Your task to perform on an android device: Search for sushi restaurants on Maps Image 0: 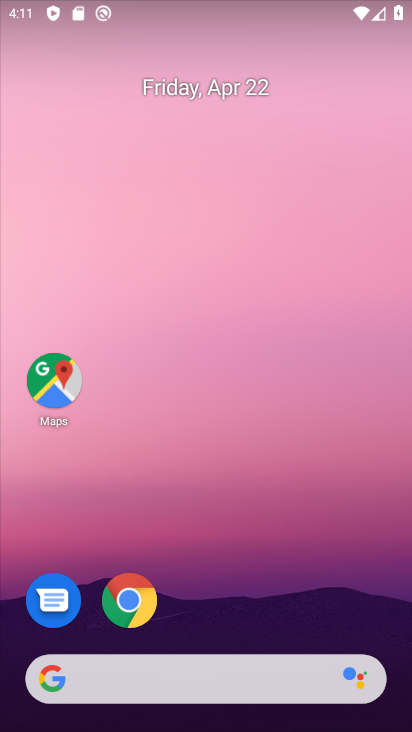
Step 0: click (233, 261)
Your task to perform on an android device: Search for sushi restaurants on Maps Image 1: 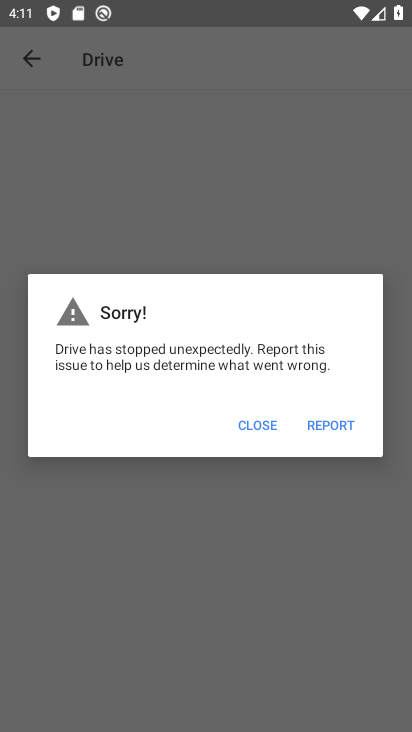
Step 1: press home button
Your task to perform on an android device: Search for sushi restaurants on Maps Image 2: 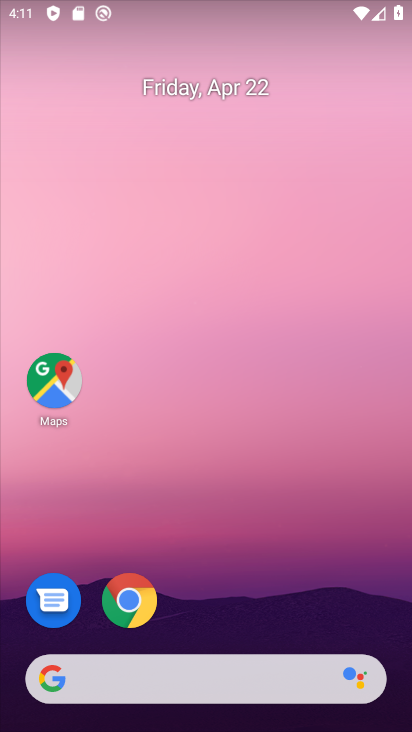
Step 2: drag from (284, 693) to (331, 320)
Your task to perform on an android device: Search for sushi restaurants on Maps Image 3: 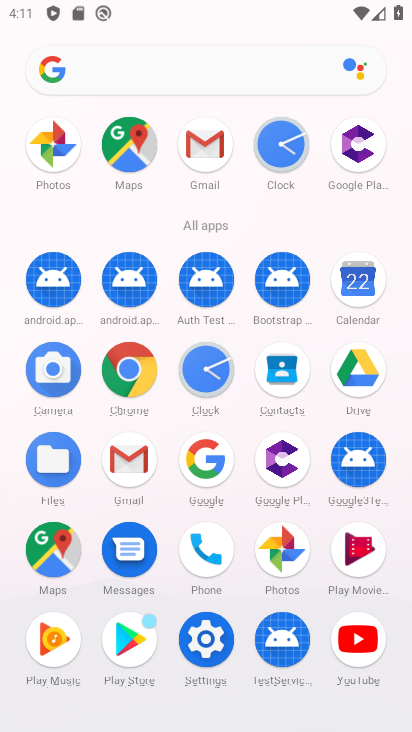
Step 3: click (65, 567)
Your task to perform on an android device: Search for sushi restaurants on Maps Image 4: 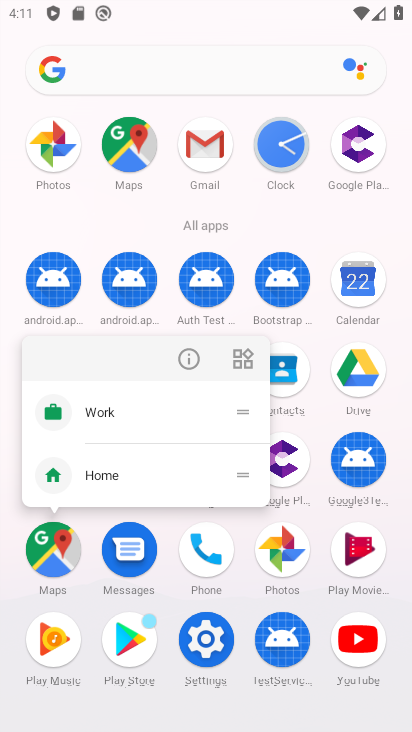
Step 4: click (65, 567)
Your task to perform on an android device: Search for sushi restaurants on Maps Image 5: 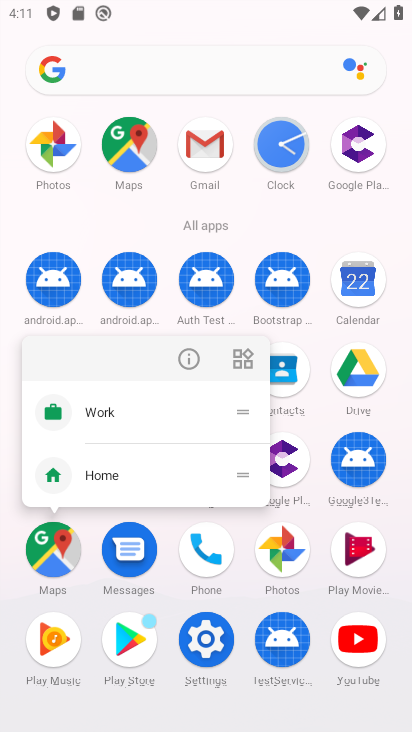
Step 5: click (65, 558)
Your task to perform on an android device: Search for sushi restaurants on Maps Image 6: 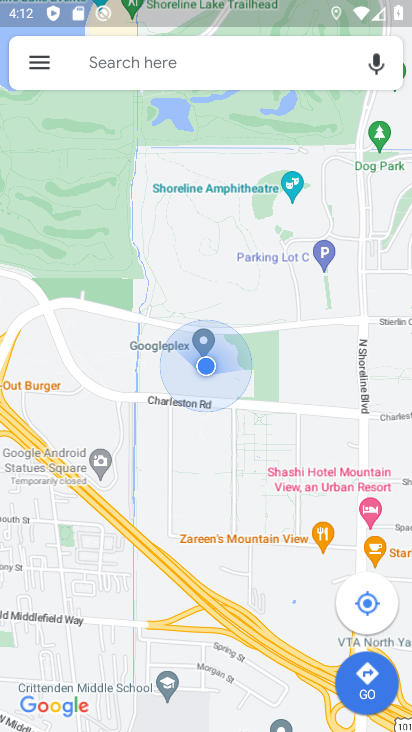
Step 6: type "shushi restaurants"
Your task to perform on an android device: Search for sushi restaurants on Maps Image 7: 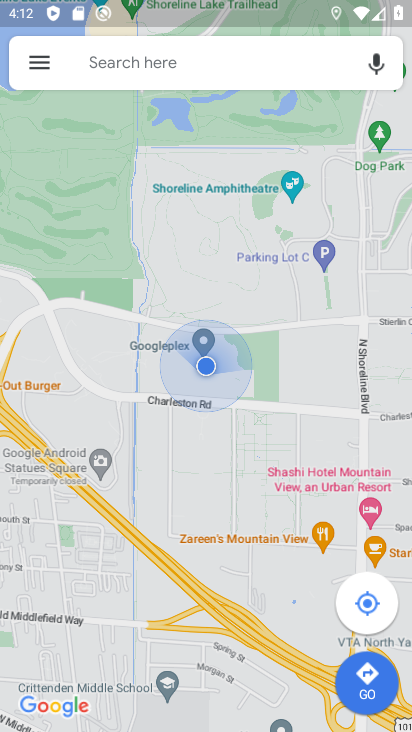
Step 7: click (233, 67)
Your task to perform on an android device: Search for sushi restaurants on Maps Image 8: 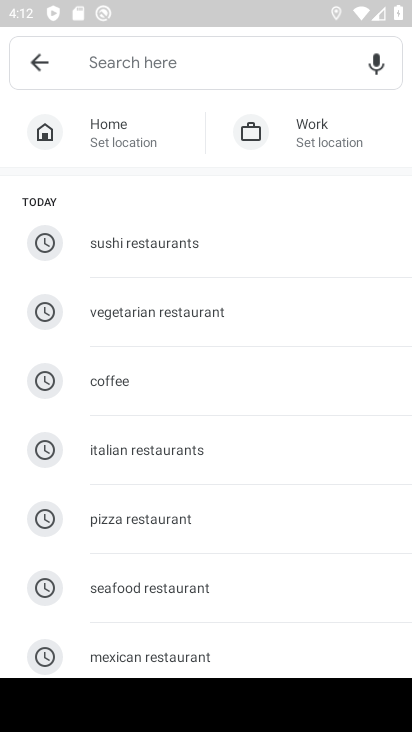
Step 8: click (176, 235)
Your task to perform on an android device: Search for sushi restaurants on Maps Image 9: 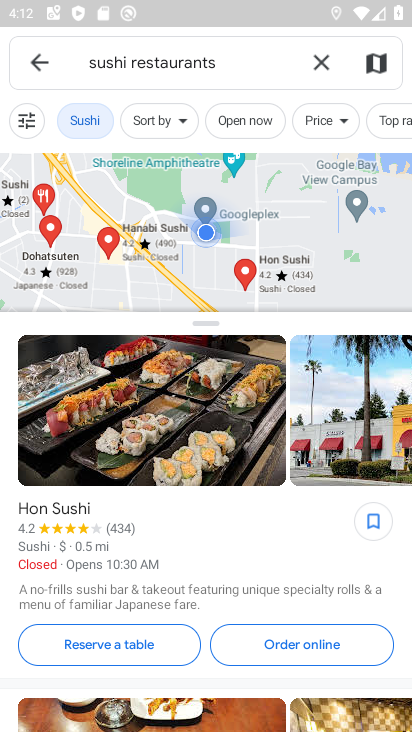
Step 9: task complete